Your task to perform on an android device: Search for top rated pizza restaurants on Maps Image 0: 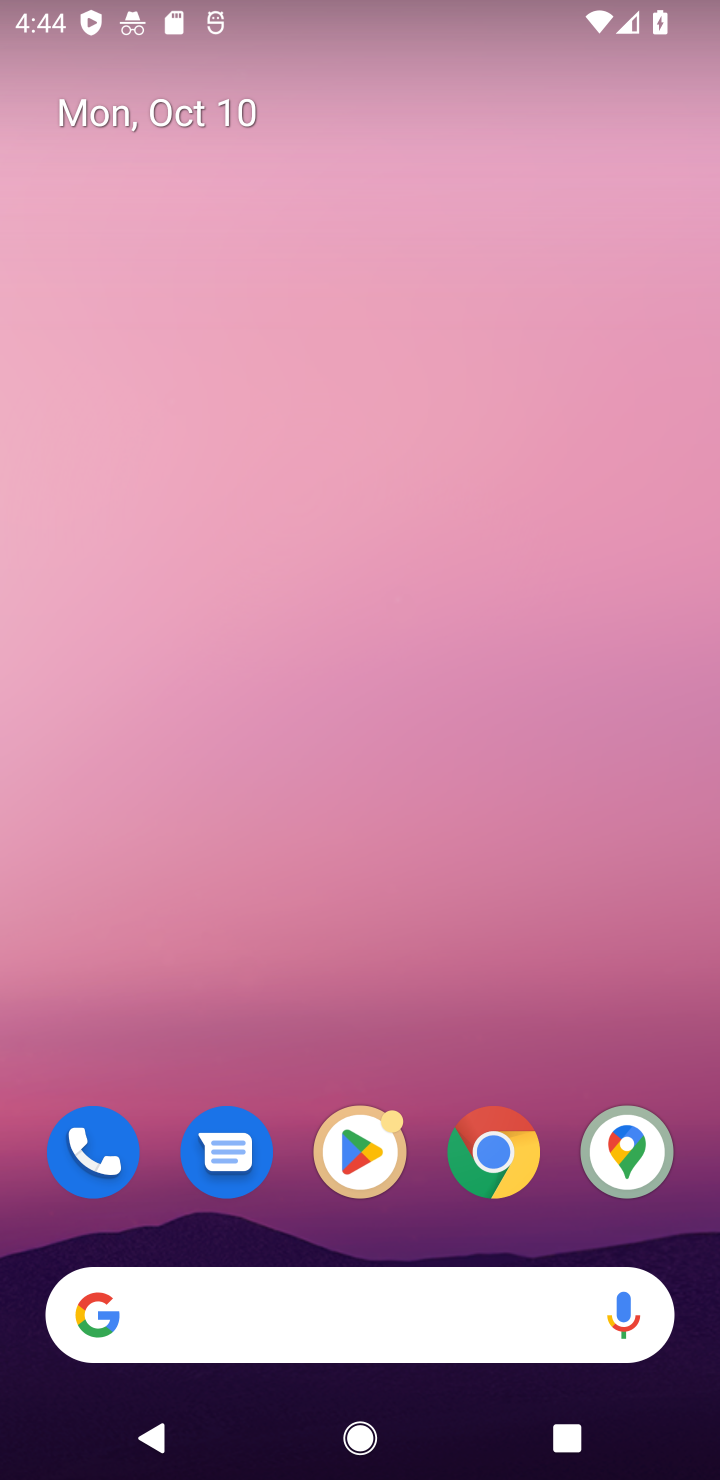
Step 0: click (631, 1148)
Your task to perform on an android device: Search for top rated pizza restaurants on Maps Image 1: 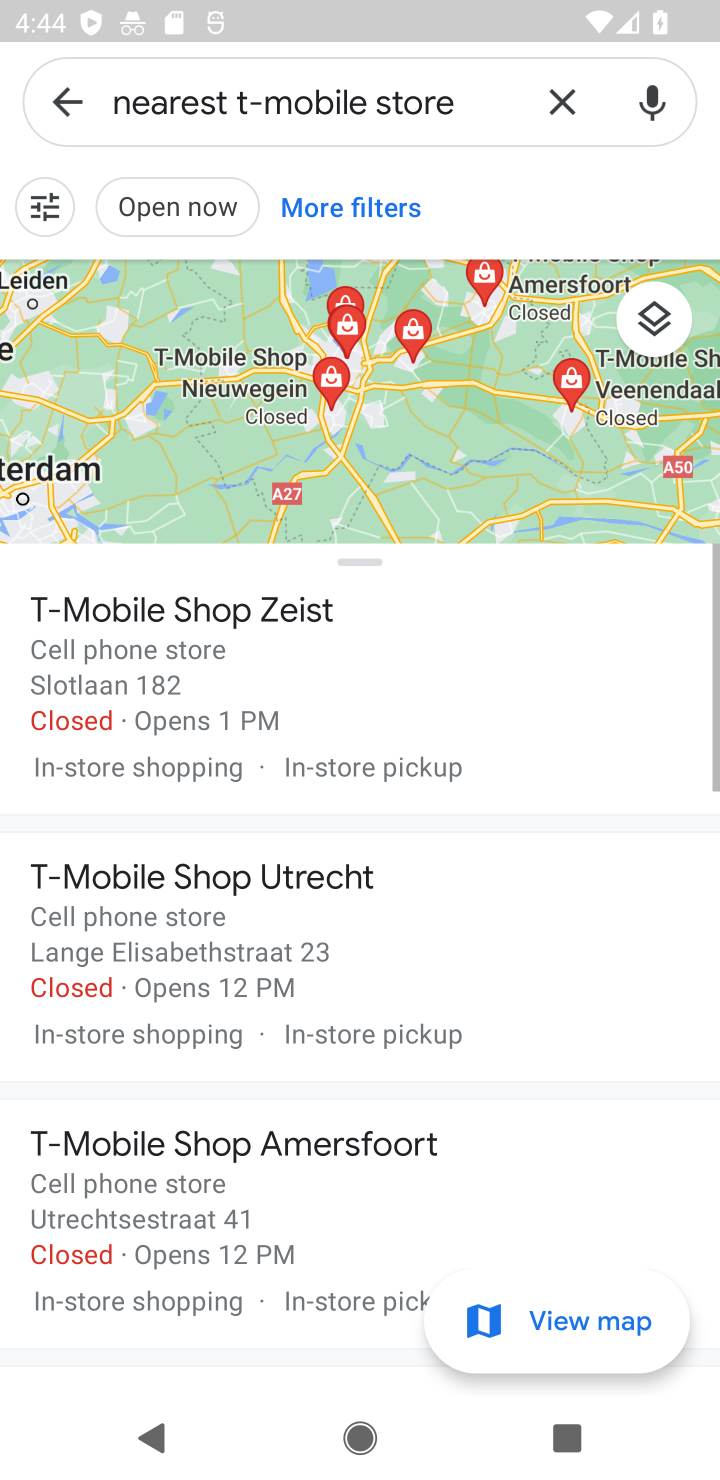
Step 1: click (563, 98)
Your task to perform on an android device: Search for top rated pizza restaurants on Maps Image 2: 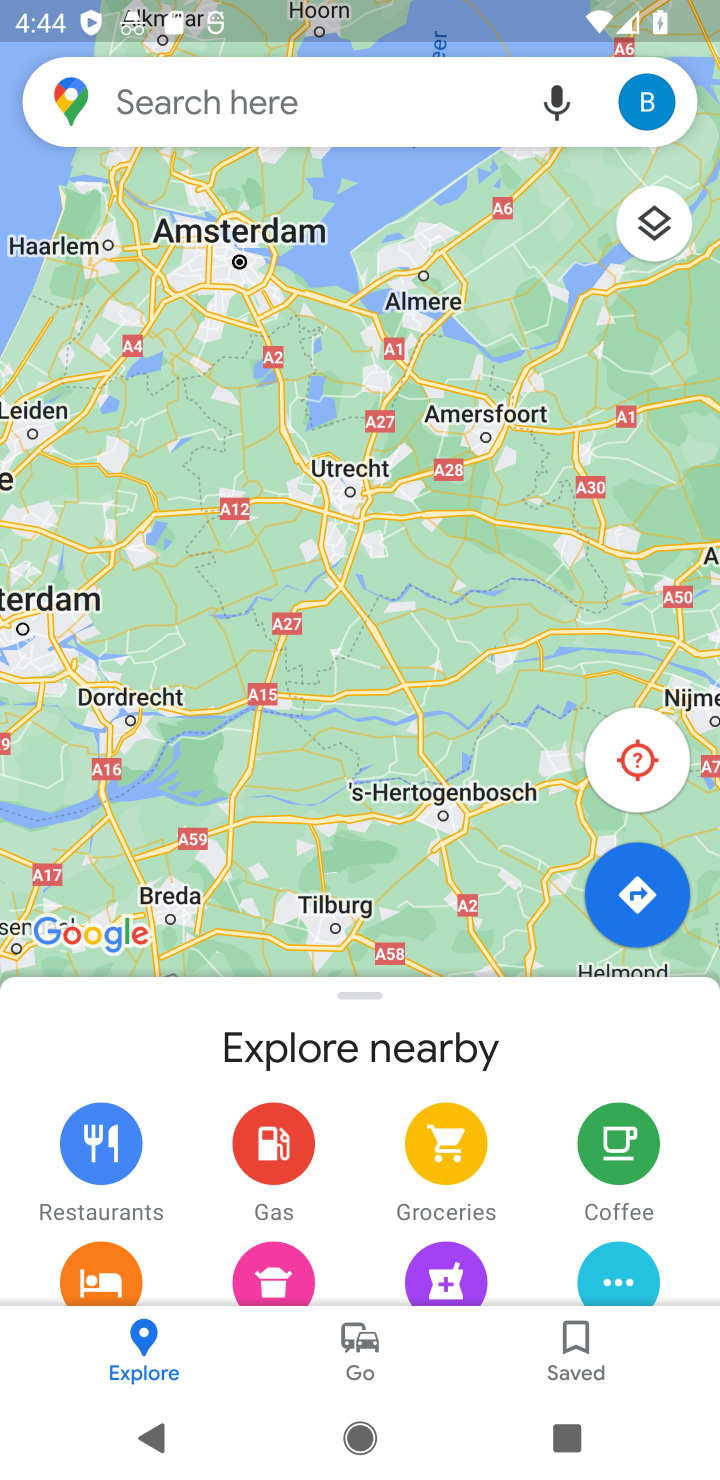
Step 2: click (347, 115)
Your task to perform on an android device: Search for top rated pizza restaurants on Maps Image 3: 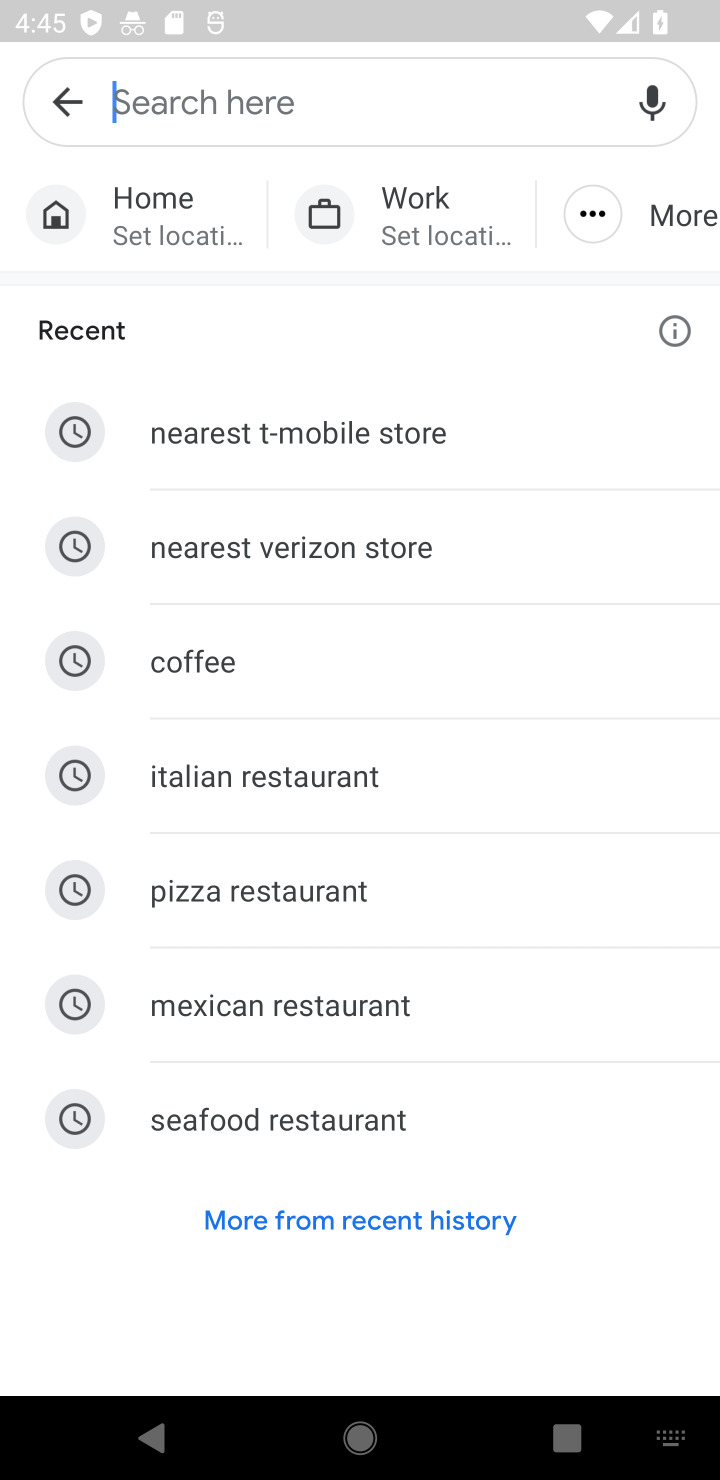
Step 3: type "pizza restaurants"
Your task to perform on an android device: Search for top rated pizza restaurants on Maps Image 4: 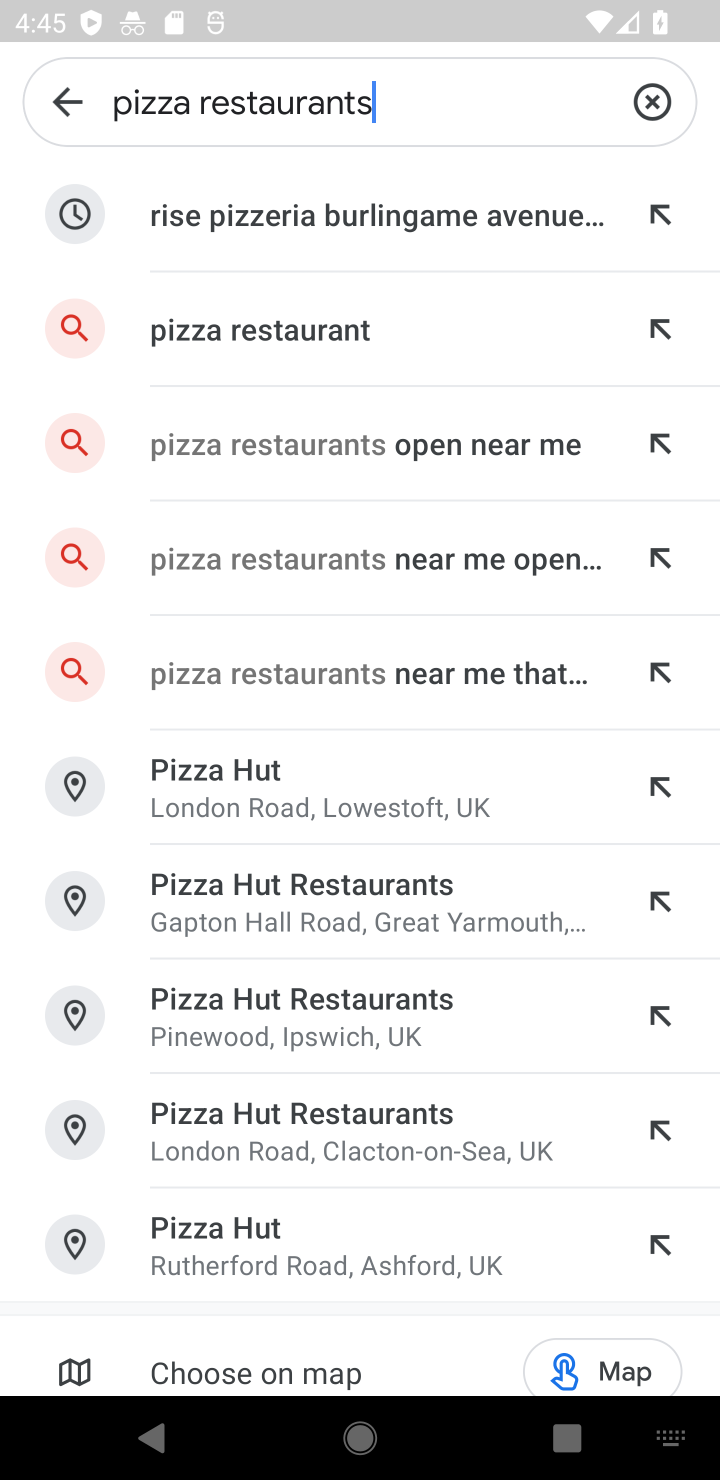
Step 4: click (320, 339)
Your task to perform on an android device: Search for top rated pizza restaurants on Maps Image 5: 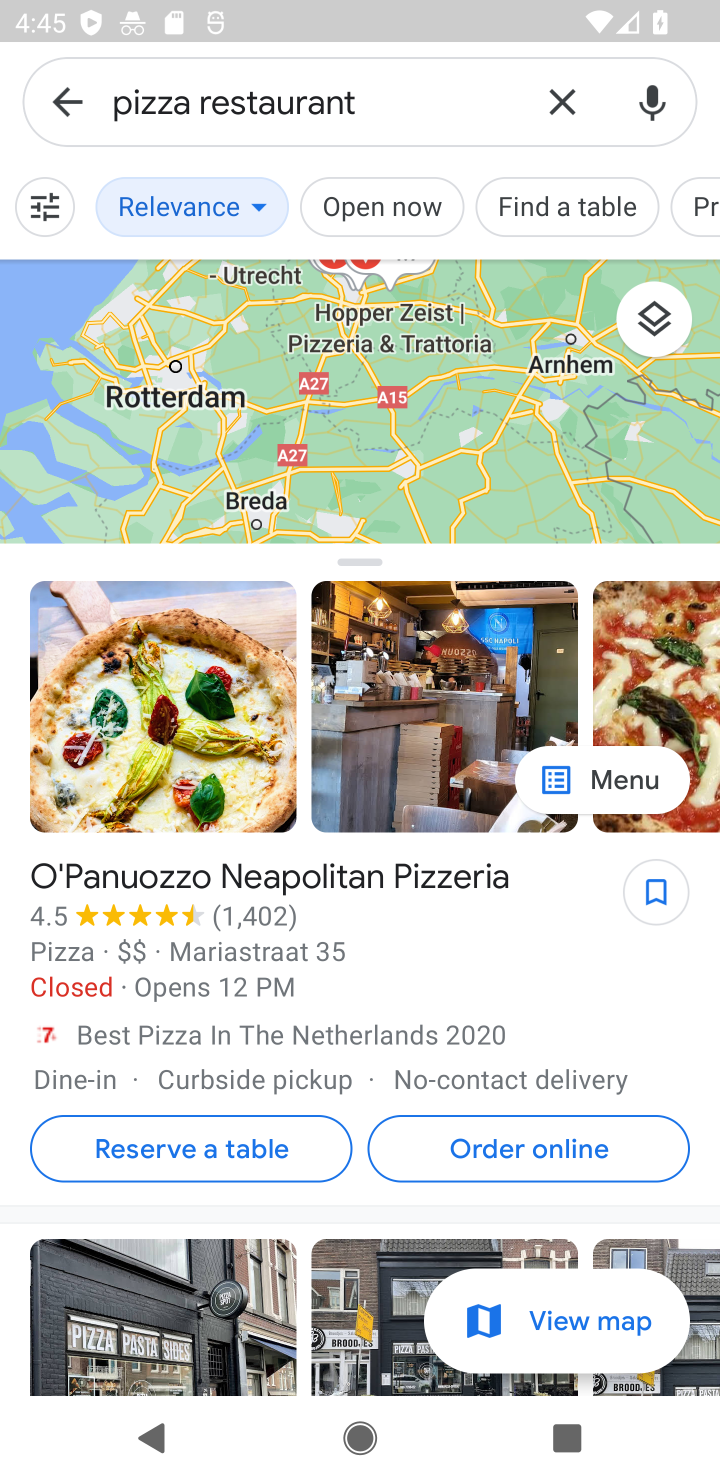
Step 5: drag from (557, 227) to (175, 207)
Your task to perform on an android device: Search for top rated pizza restaurants on Maps Image 6: 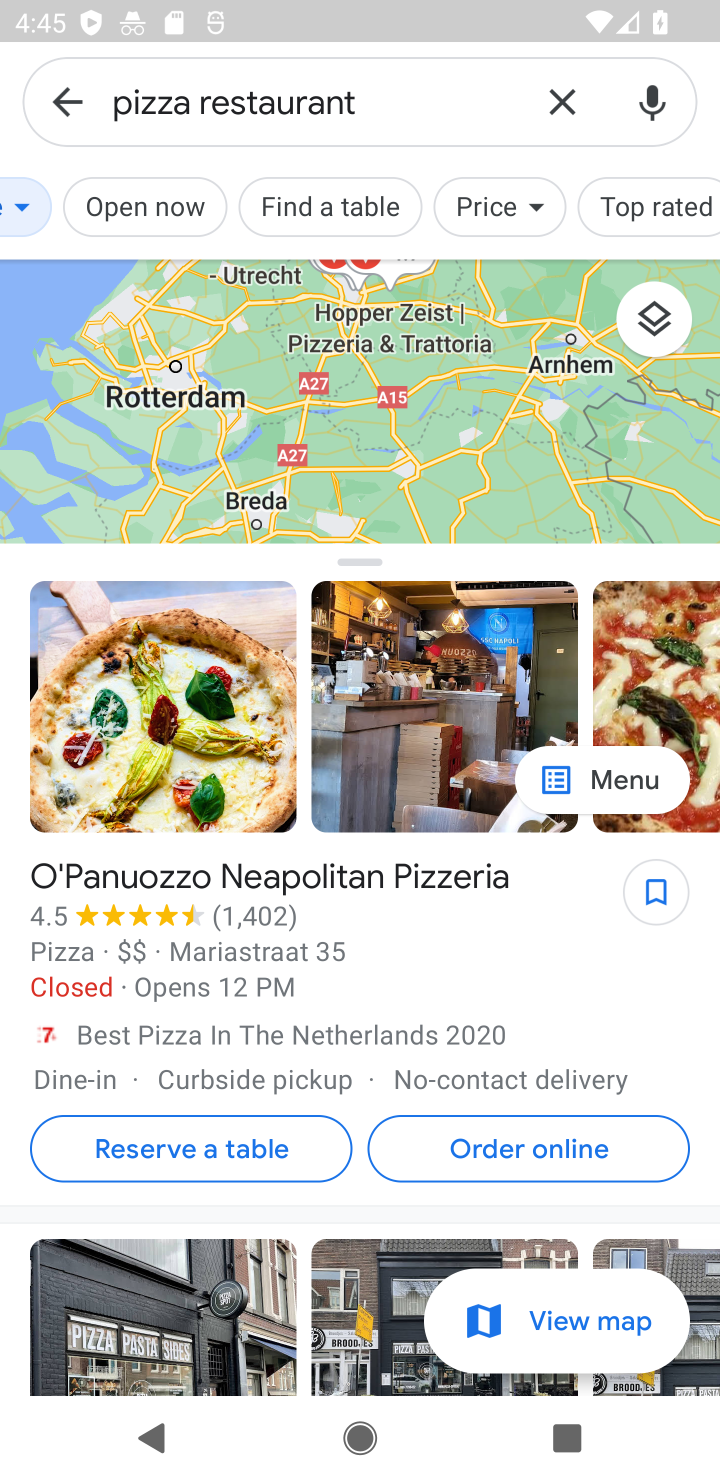
Step 6: click (622, 215)
Your task to perform on an android device: Search for top rated pizza restaurants on Maps Image 7: 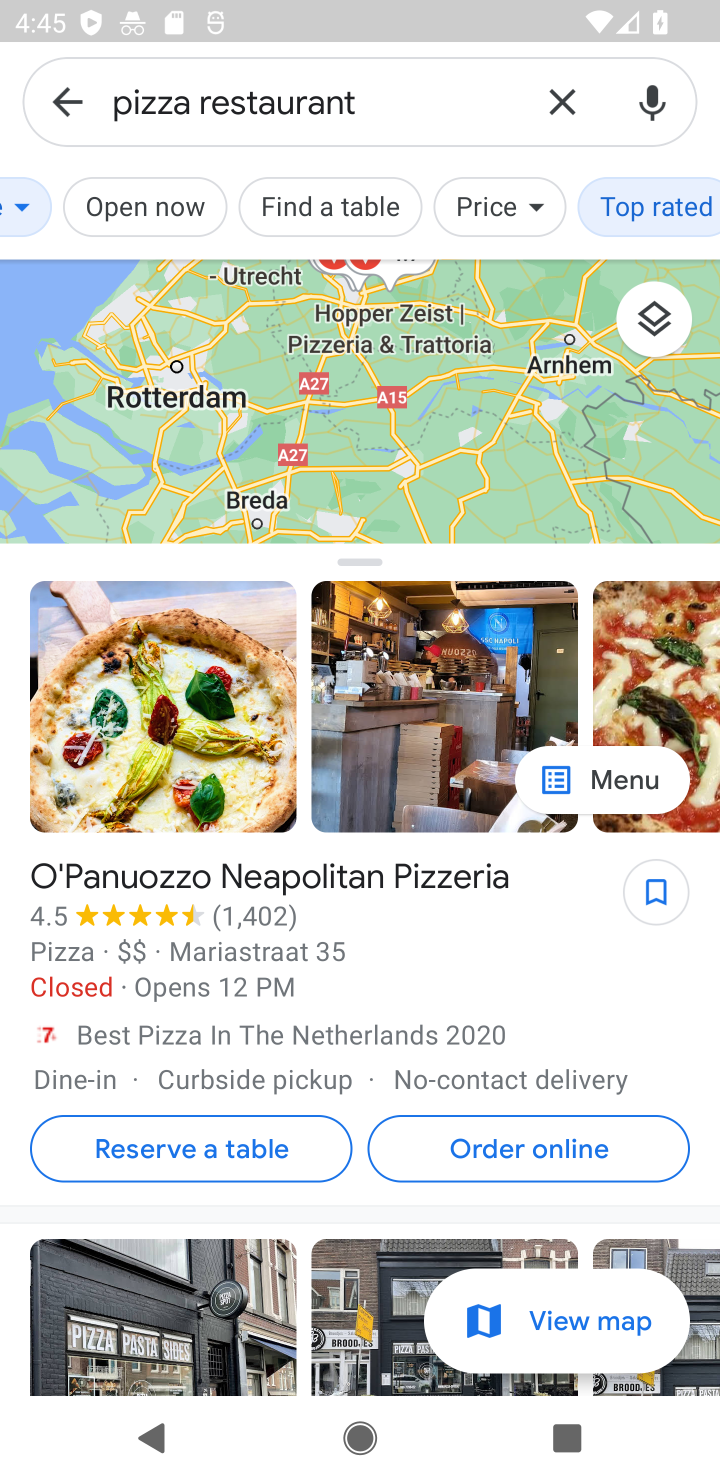
Step 7: task complete